Your task to perform on an android device: turn on notifications settings in the gmail app Image 0: 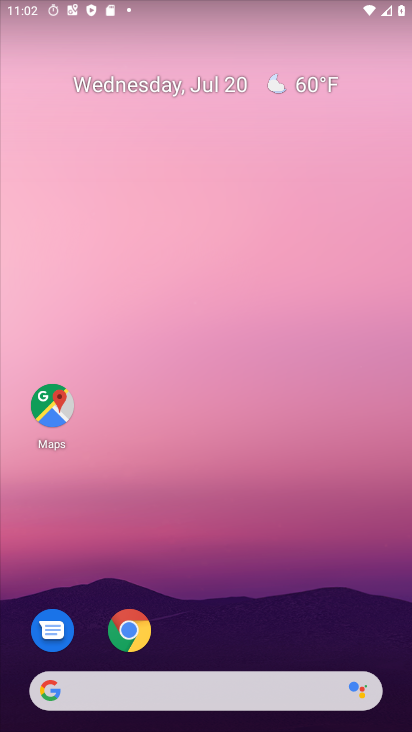
Step 0: drag from (240, 626) to (246, 45)
Your task to perform on an android device: turn on notifications settings in the gmail app Image 1: 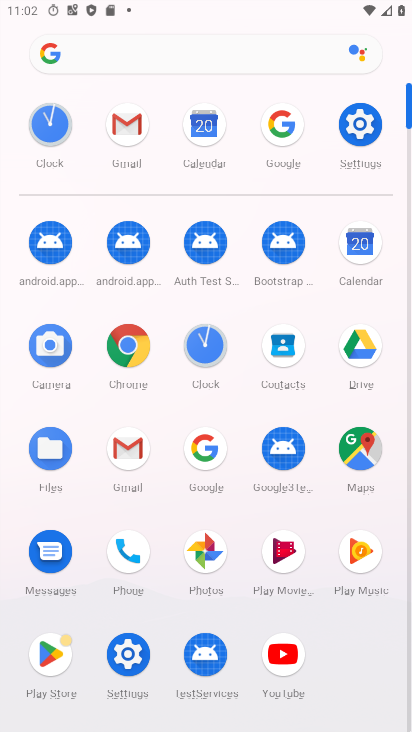
Step 1: click (127, 123)
Your task to perform on an android device: turn on notifications settings in the gmail app Image 2: 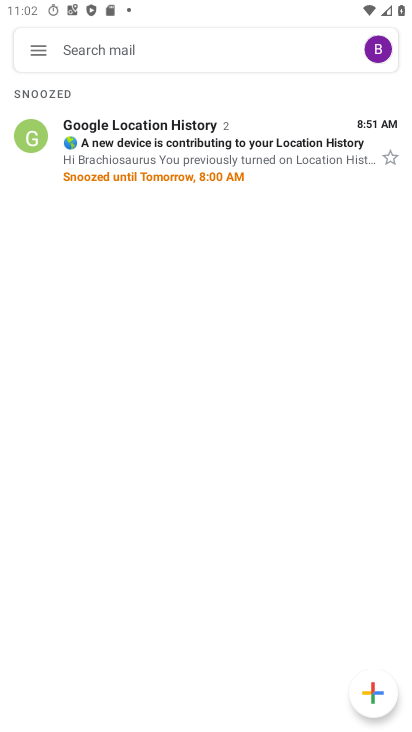
Step 2: click (36, 55)
Your task to perform on an android device: turn on notifications settings in the gmail app Image 3: 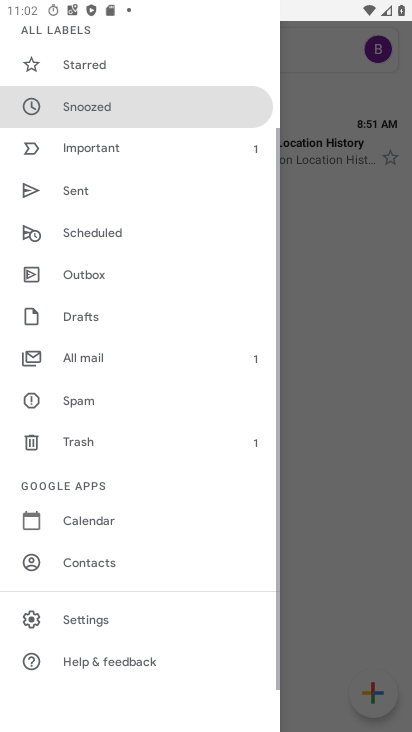
Step 3: click (106, 607)
Your task to perform on an android device: turn on notifications settings in the gmail app Image 4: 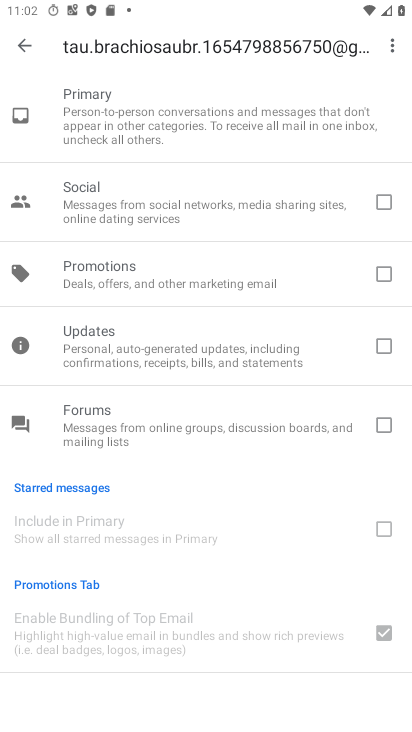
Step 4: drag from (162, 597) to (209, 530)
Your task to perform on an android device: turn on notifications settings in the gmail app Image 5: 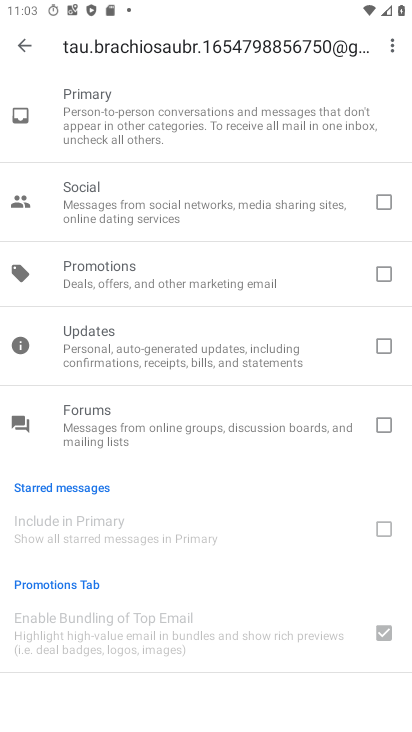
Step 5: press back button
Your task to perform on an android device: turn on notifications settings in the gmail app Image 6: 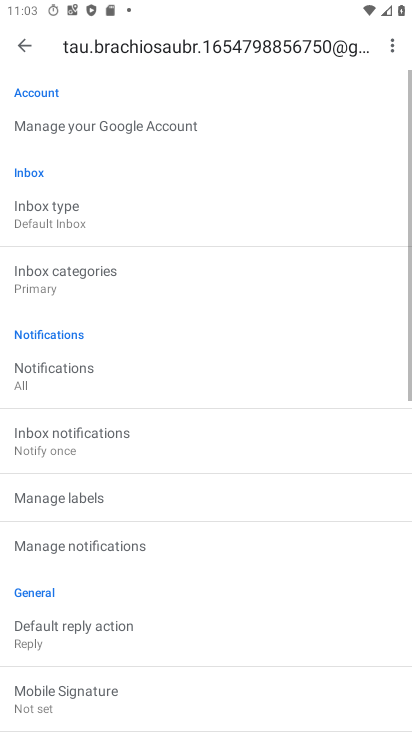
Step 6: click (72, 378)
Your task to perform on an android device: turn on notifications settings in the gmail app Image 7: 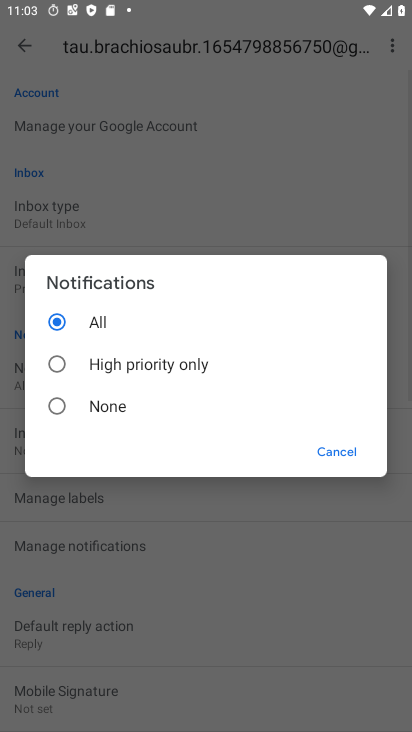
Step 7: task complete